Your task to perform on an android device: Open Google Chrome and open the bookmarks view Image 0: 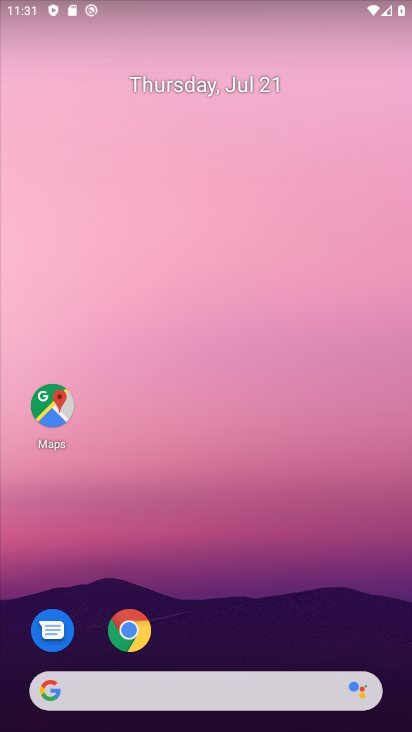
Step 0: press home button
Your task to perform on an android device: Open Google Chrome and open the bookmarks view Image 1: 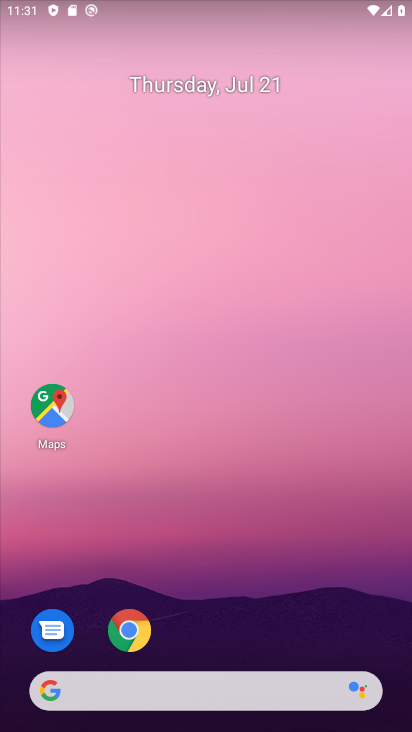
Step 1: click (131, 638)
Your task to perform on an android device: Open Google Chrome and open the bookmarks view Image 2: 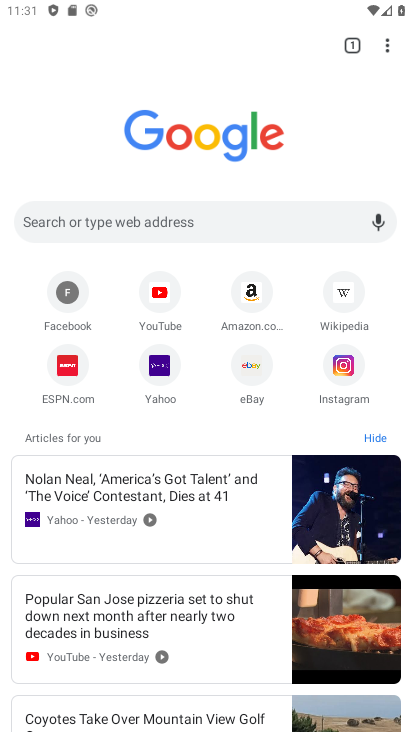
Step 2: click (387, 44)
Your task to perform on an android device: Open Google Chrome and open the bookmarks view Image 3: 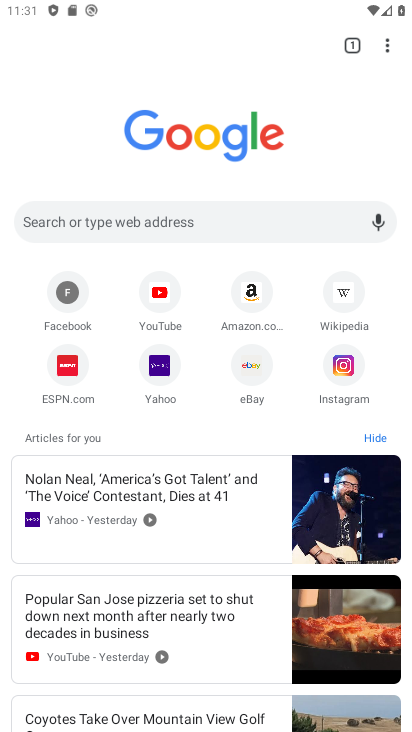
Step 3: task complete